Your task to perform on an android device: Go to eBay Image 0: 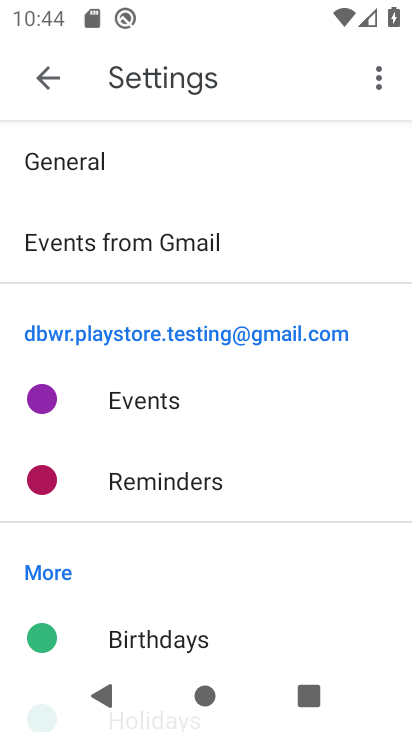
Step 0: press home button
Your task to perform on an android device: Go to eBay Image 1: 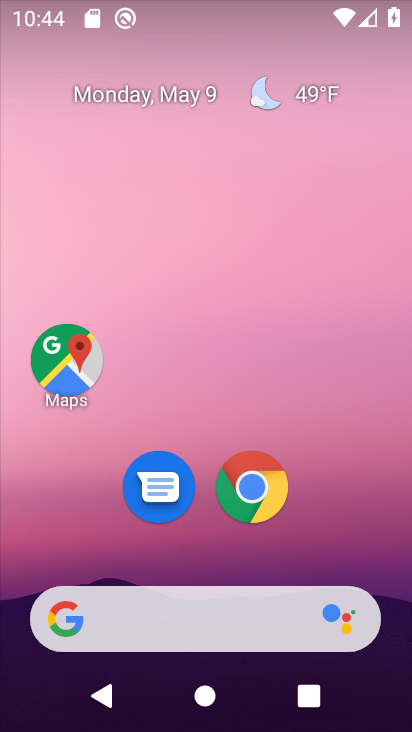
Step 1: click (239, 473)
Your task to perform on an android device: Go to eBay Image 2: 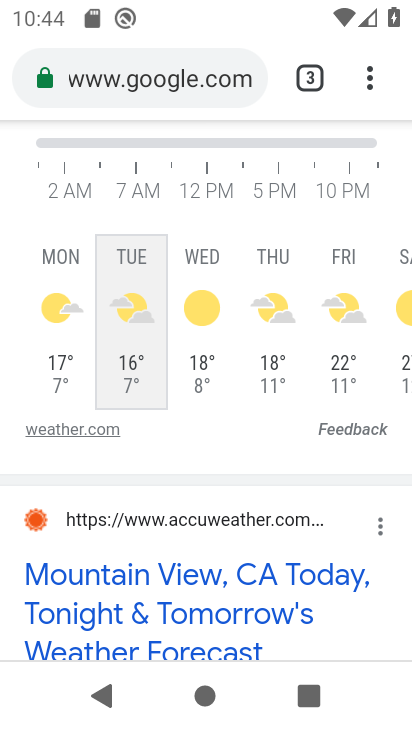
Step 2: click (315, 74)
Your task to perform on an android device: Go to eBay Image 3: 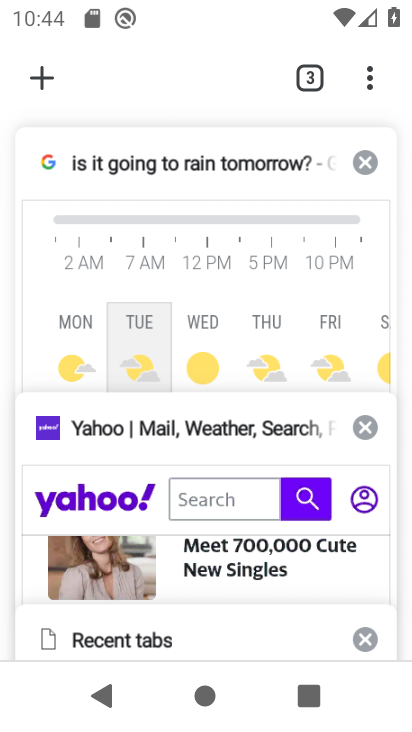
Step 3: click (45, 77)
Your task to perform on an android device: Go to eBay Image 4: 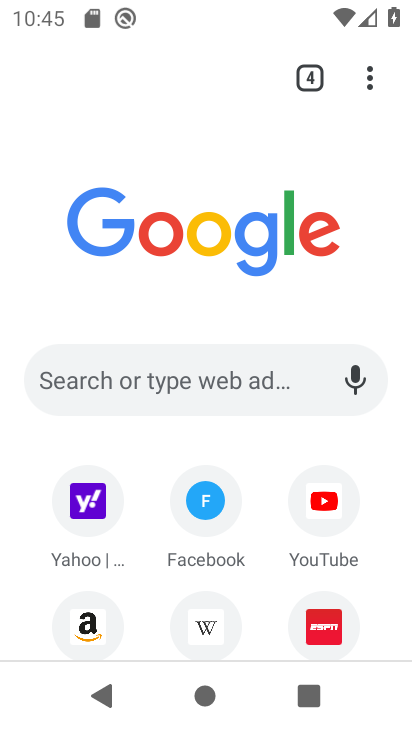
Step 4: click (178, 381)
Your task to perform on an android device: Go to eBay Image 5: 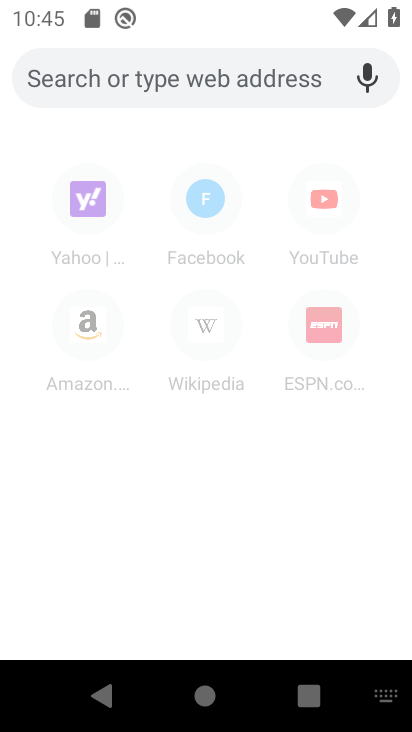
Step 5: type "ebay"
Your task to perform on an android device: Go to eBay Image 6: 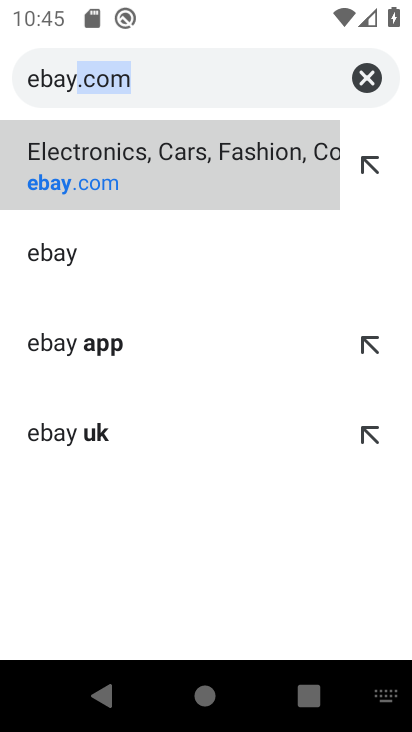
Step 6: click (168, 162)
Your task to perform on an android device: Go to eBay Image 7: 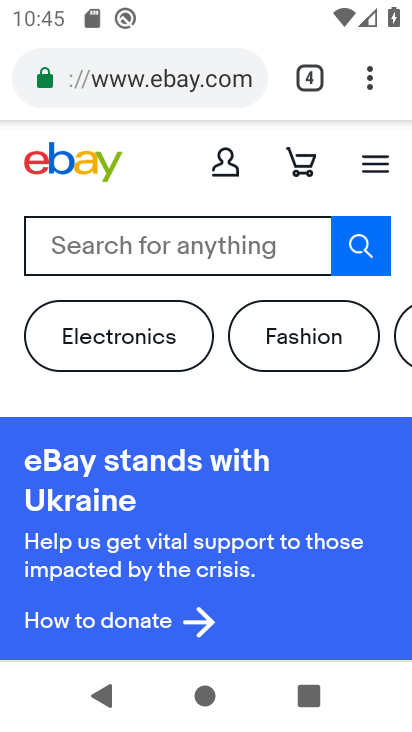
Step 7: task complete